Your task to perform on an android device: Search for logitech g910 on target, select the first entry, add it to the cart, then select checkout. Image 0: 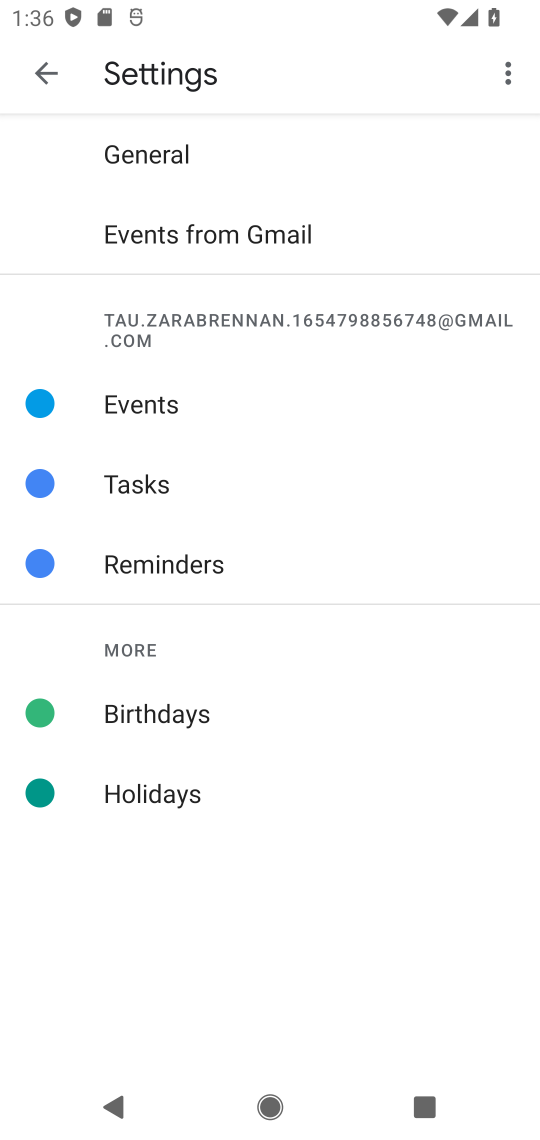
Step 0: press home button
Your task to perform on an android device: Search for logitech g910 on target, select the first entry, add it to the cart, then select checkout. Image 1: 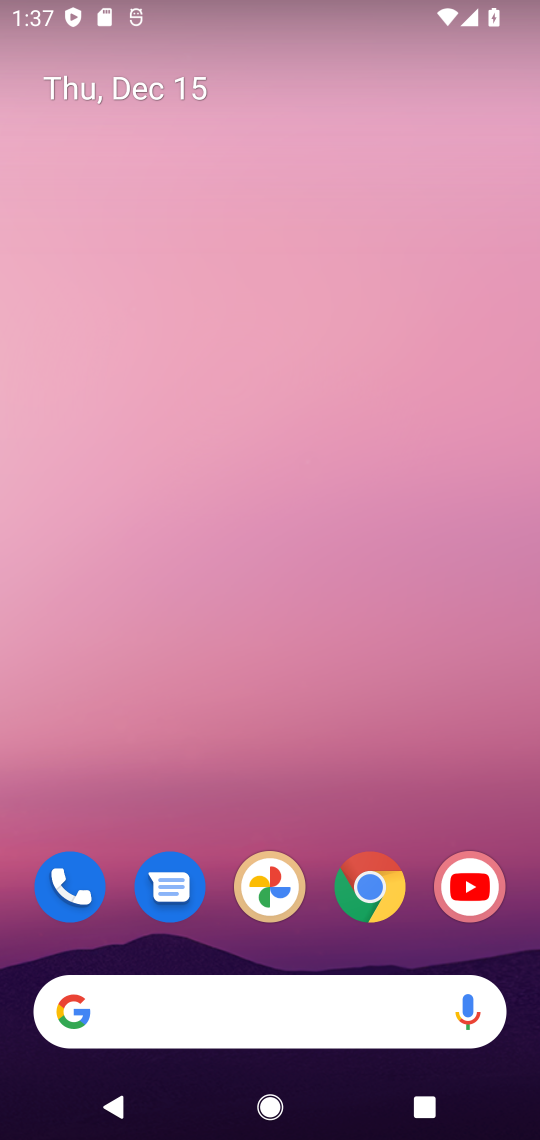
Step 1: click (371, 895)
Your task to perform on an android device: Search for logitech g910 on target, select the first entry, add it to the cart, then select checkout. Image 2: 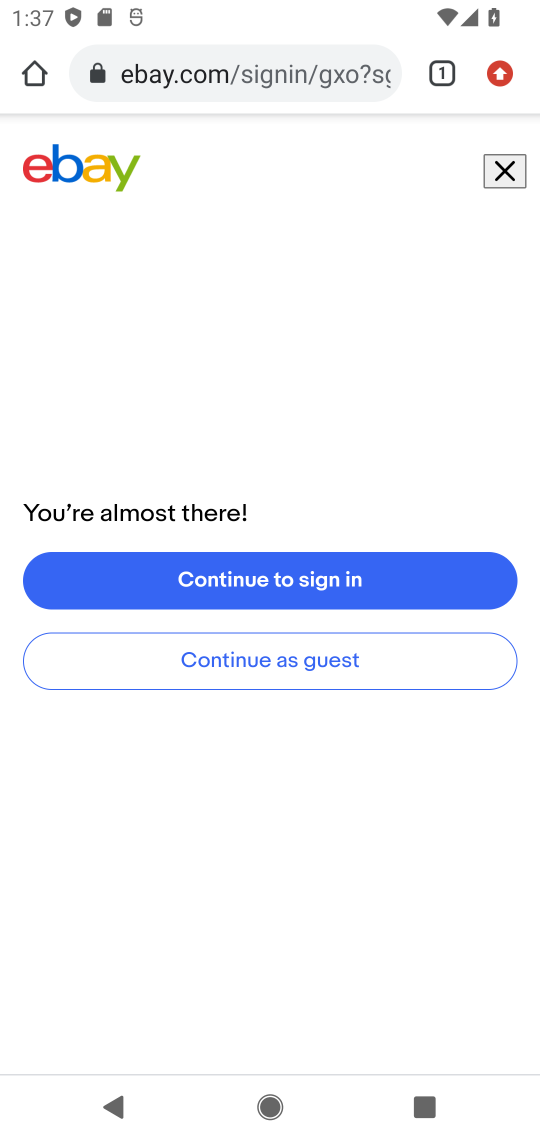
Step 2: click (224, 86)
Your task to perform on an android device: Search for logitech g910 on target, select the first entry, add it to the cart, then select checkout. Image 3: 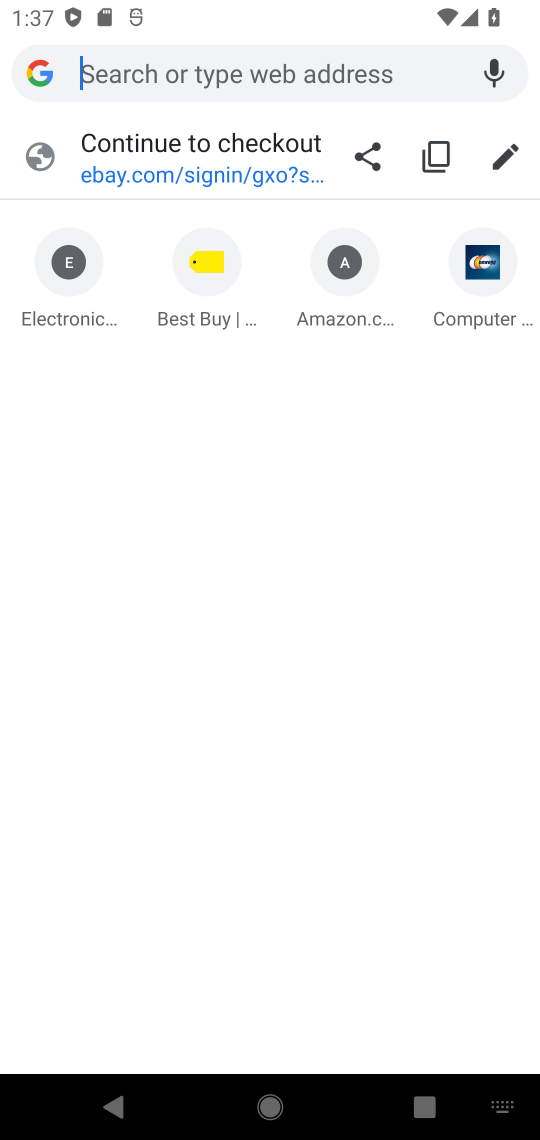
Step 3: type "target.com"
Your task to perform on an android device: Search for logitech g910 on target, select the first entry, add it to the cart, then select checkout. Image 4: 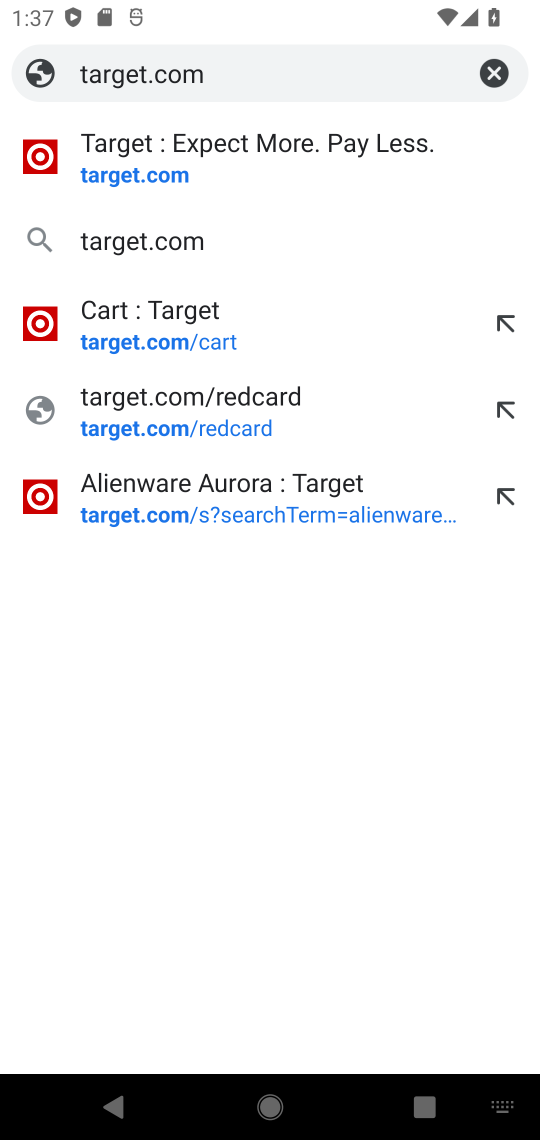
Step 4: click (111, 171)
Your task to perform on an android device: Search for logitech g910 on target, select the first entry, add it to the cart, then select checkout. Image 5: 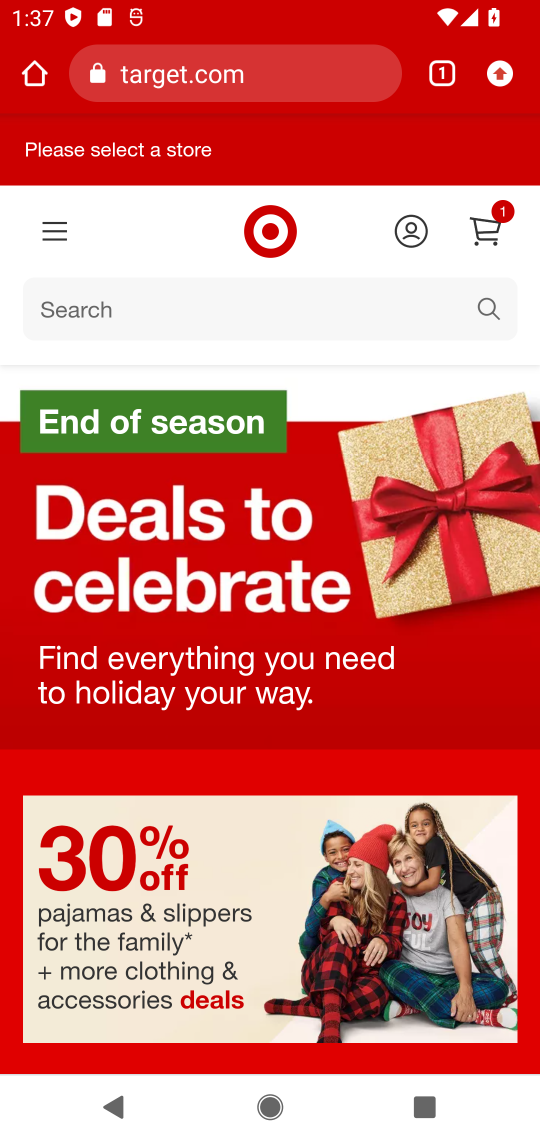
Step 5: click (50, 310)
Your task to perform on an android device: Search for logitech g910 on target, select the first entry, add it to the cart, then select checkout. Image 6: 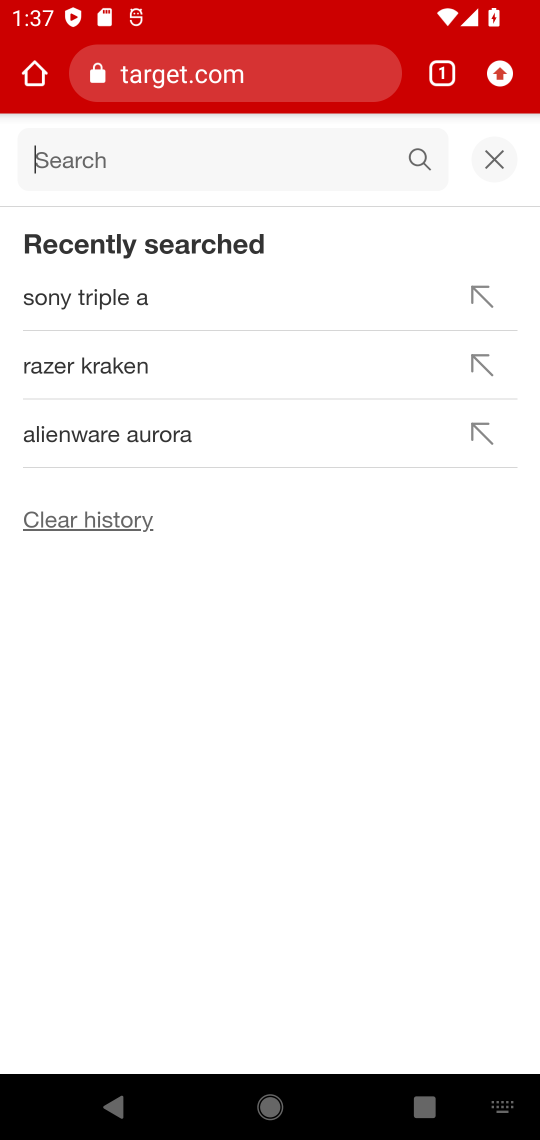
Step 6: type " logitech g910"
Your task to perform on an android device: Search for logitech g910 on target, select the first entry, add it to the cart, then select checkout. Image 7: 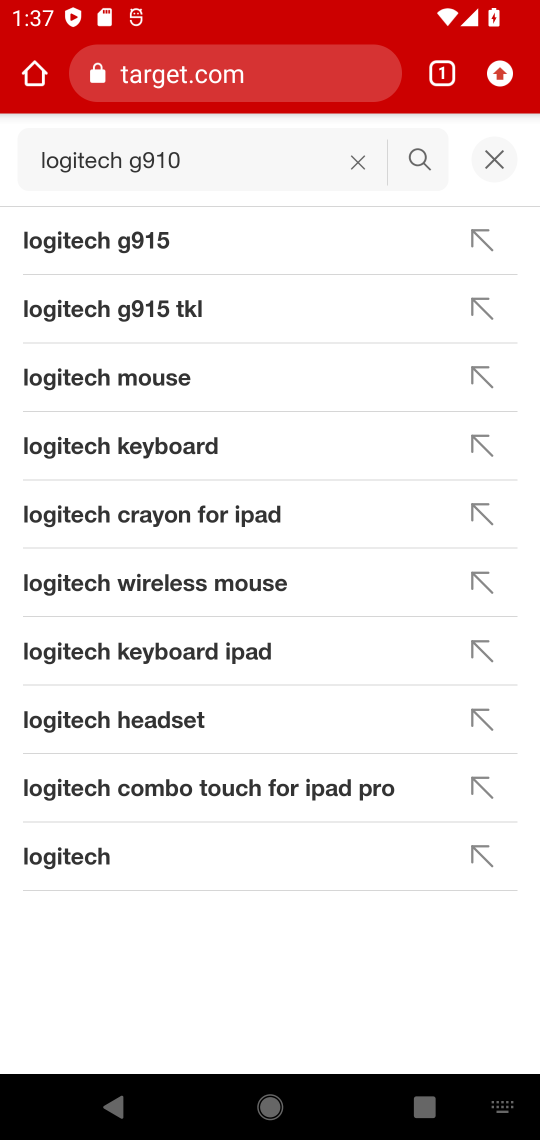
Step 7: click (417, 156)
Your task to perform on an android device: Search for logitech g910 on target, select the first entry, add it to the cart, then select checkout. Image 8: 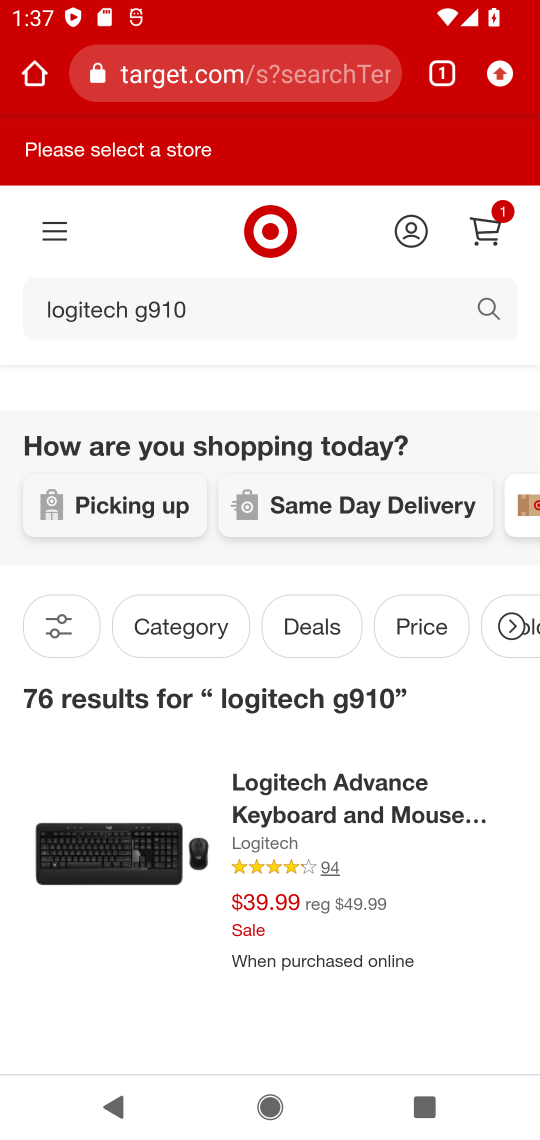
Step 8: task complete